Your task to perform on an android device: Open internet settings Image 0: 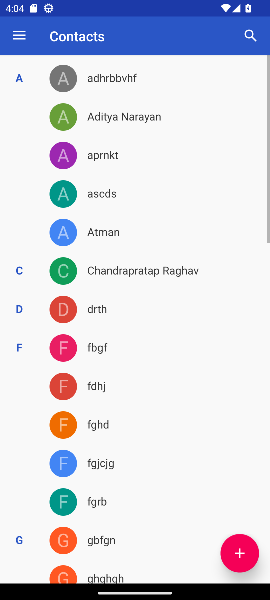
Step 0: drag from (163, 560) to (97, 119)
Your task to perform on an android device: Open internet settings Image 1: 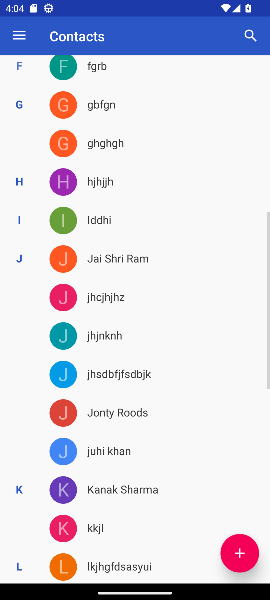
Step 1: press back button
Your task to perform on an android device: Open internet settings Image 2: 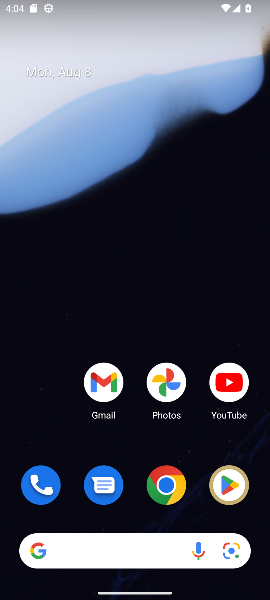
Step 2: drag from (165, 531) to (122, 151)
Your task to perform on an android device: Open internet settings Image 3: 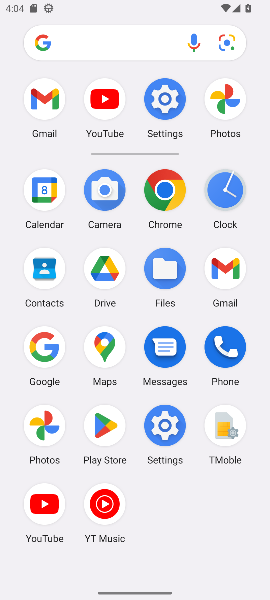
Step 3: click (156, 84)
Your task to perform on an android device: Open internet settings Image 4: 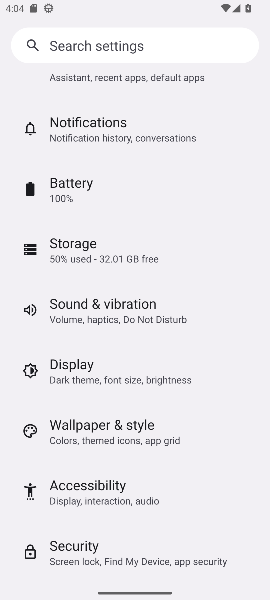
Step 4: drag from (89, 138) to (108, 362)
Your task to perform on an android device: Open internet settings Image 5: 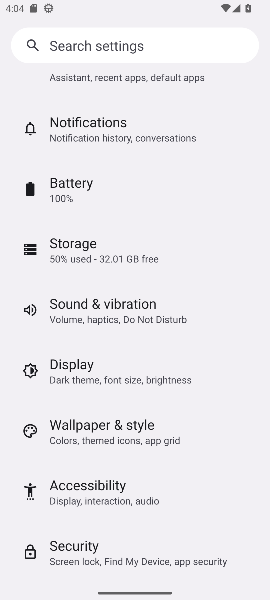
Step 5: click (86, 496)
Your task to perform on an android device: Open internet settings Image 6: 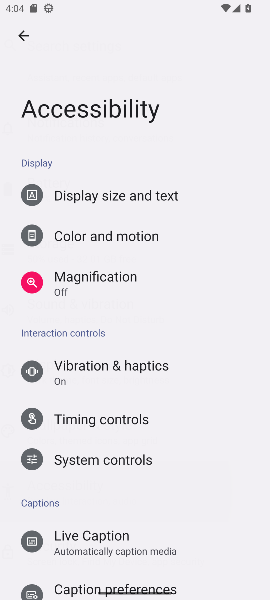
Step 6: drag from (93, 402) to (93, 472)
Your task to perform on an android device: Open internet settings Image 7: 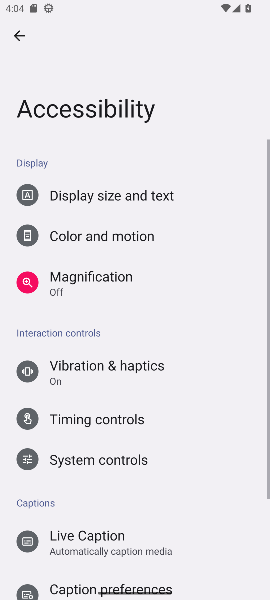
Step 7: click (18, 32)
Your task to perform on an android device: Open internet settings Image 8: 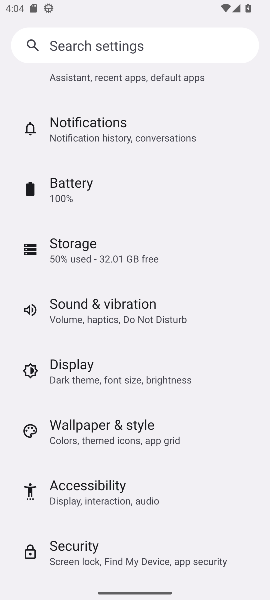
Step 8: drag from (88, 112) to (88, 484)
Your task to perform on an android device: Open internet settings Image 9: 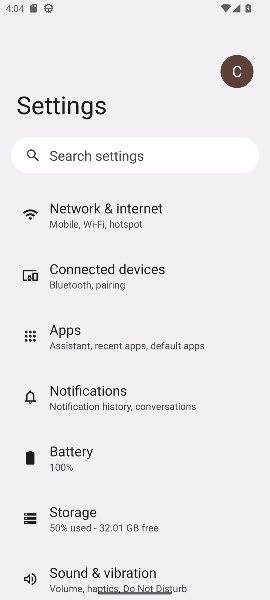
Step 9: drag from (57, 204) to (105, 503)
Your task to perform on an android device: Open internet settings Image 10: 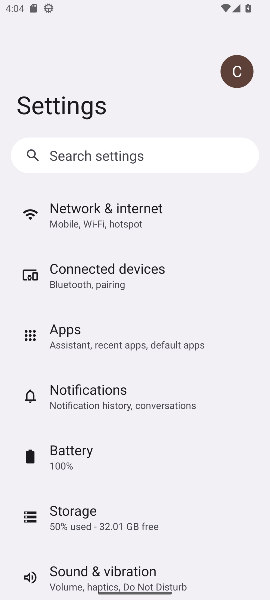
Step 10: click (108, 159)
Your task to perform on an android device: Open internet settings Image 11: 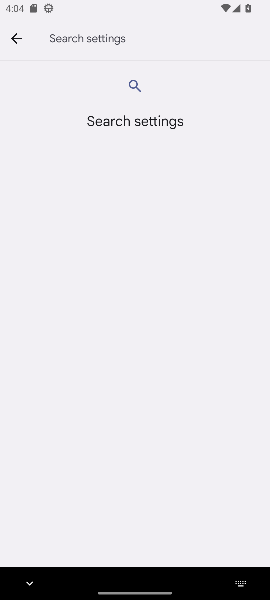
Step 11: click (109, 214)
Your task to perform on an android device: Open internet settings Image 12: 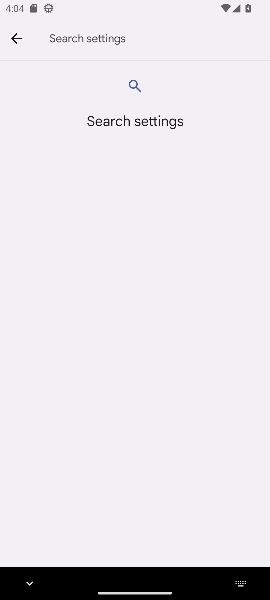
Step 12: click (12, 29)
Your task to perform on an android device: Open internet settings Image 13: 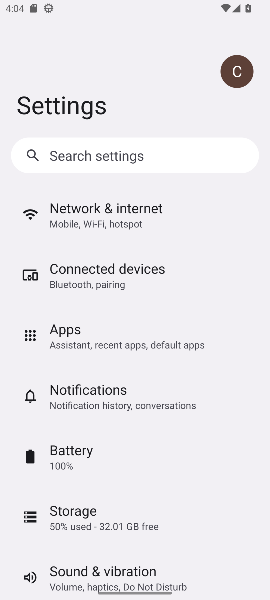
Step 13: click (96, 210)
Your task to perform on an android device: Open internet settings Image 14: 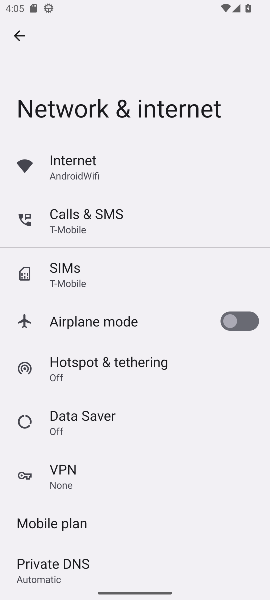
Step 14: task complete